Your task to perform on an android device: star an email in the gmail app Image 0: 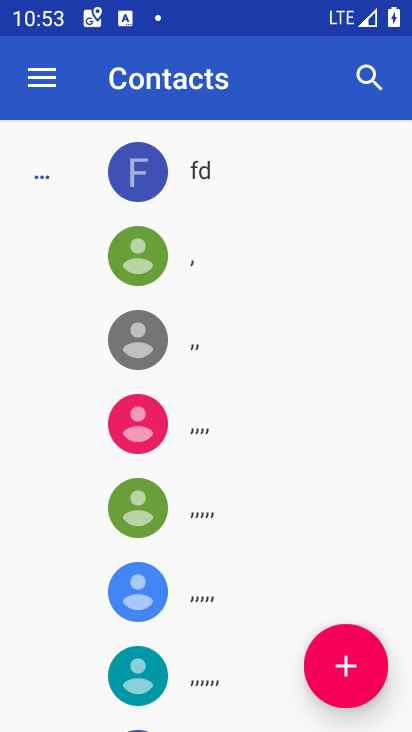
Step 0: press home button
Your task to perform on an android device: star an email in the gmail app Image 1: 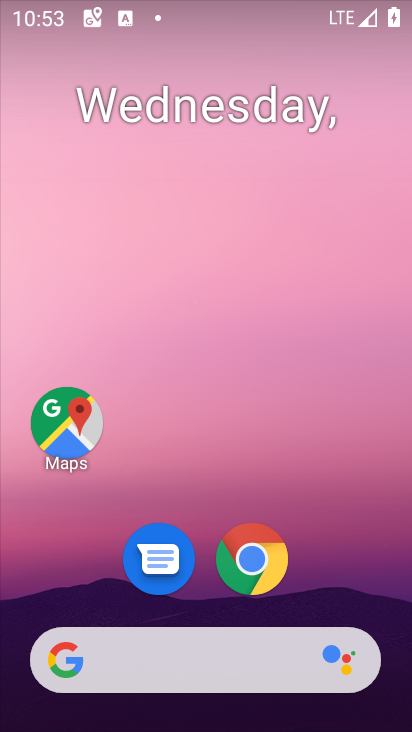
Step 1: drag from (187, 625) to (214, 59)
Your task to perform on an android device: star an email in the gmail app Image 2: 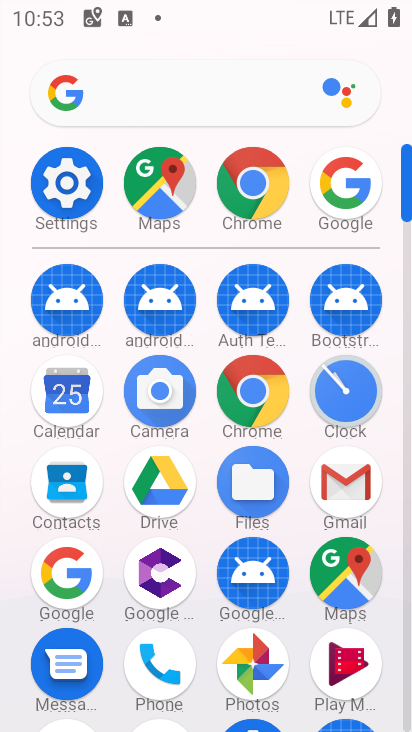
Step 2: click (345, 511)
Your task to perform on an android device: star an email in the gmail app Image 3: 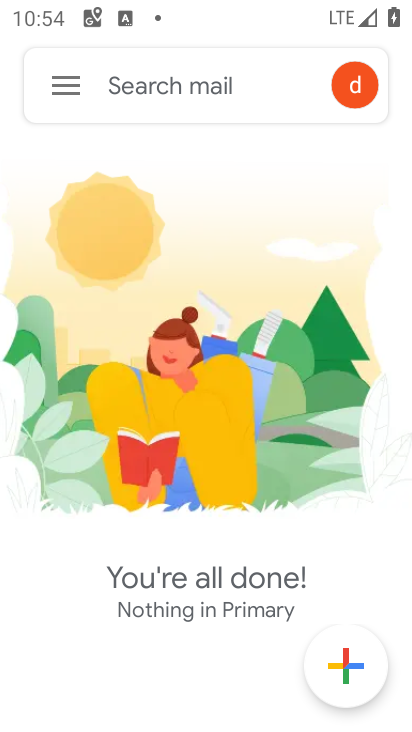
Step 3: click (72, 89)
Your task to perform on an android device: star an email in the gmail app Image 4: 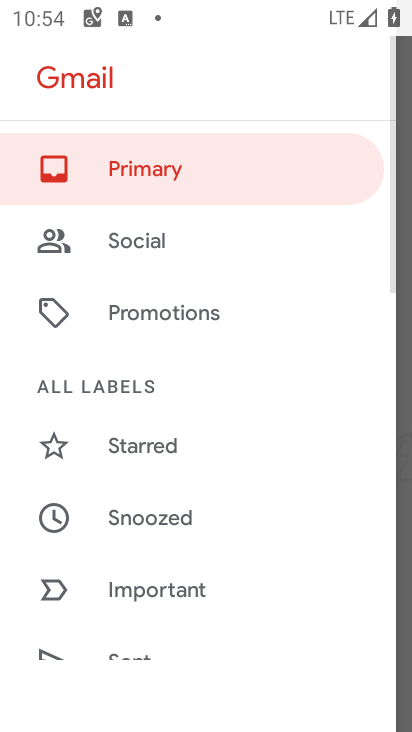
Step 4: drag from (127, 528) to (194, 159)
Your task to perform on an android device: star an email in the gmail app Image 5: 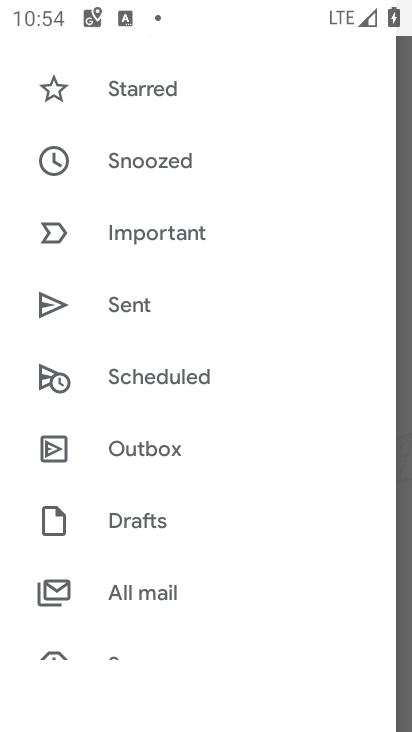
Step 5: click (182, 591)
Your task to perform on an android device: star an email in the gmail app Image 6: 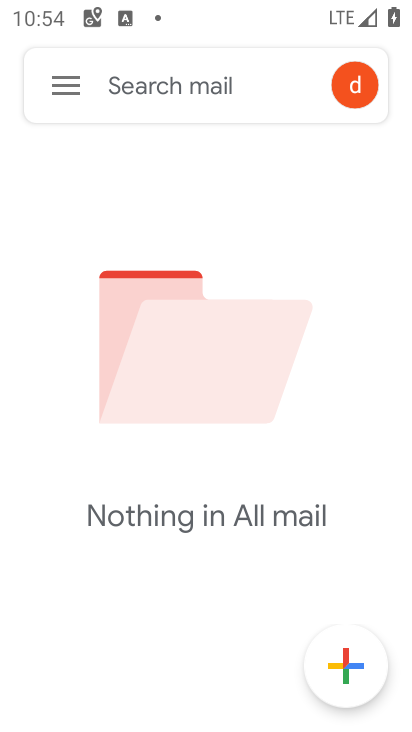
Step 6: task complete